Your task to perform on an android device: turn pop-ups off in chrome Image 0: 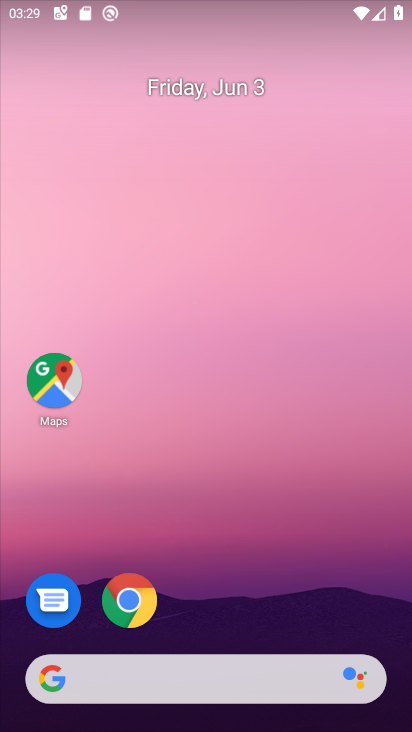
Step 0: click (128, 598)
Your task to perform on an android device: turn pop-ups off in chrome Image 1: 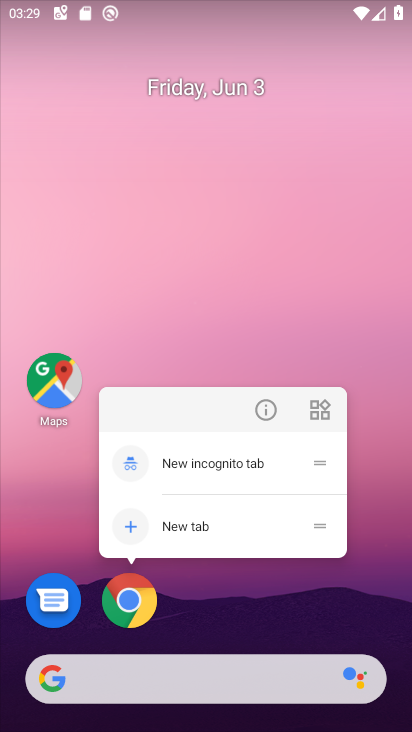
Step 1: click (130, 607)
Your task to perform on an android device: turn pop-ups off in chrome Image 2: 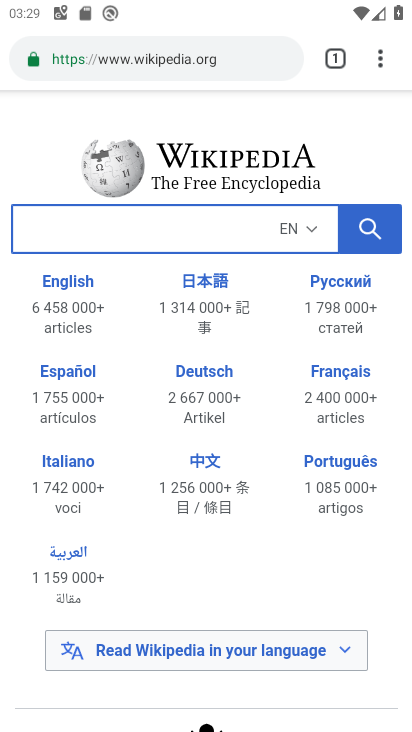
Step 2: drag from (380, 57) to (202, 633)
Your task to perform on an android device: turn pop-ups off in chrome Image 3: 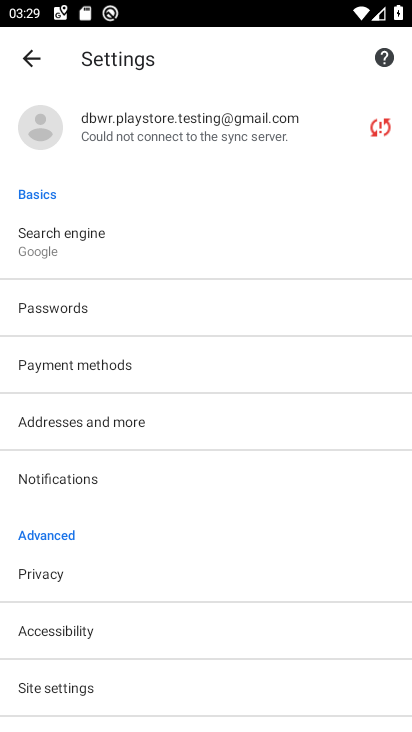
Step 3: drag from (103, 647) to (159, 265)
Your task to perform on an android device: turn pop-ups off in chrome Image 4: 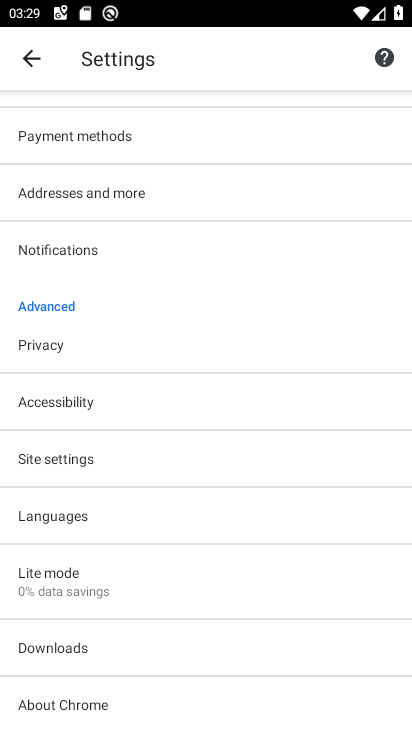
Step 4: click (80, 453)
Your task to perform on an android device: turn pop-ups off in chrome Image 5: 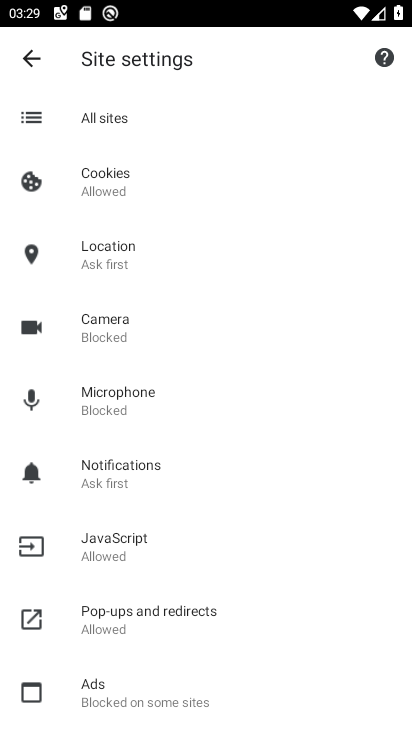
Step 5: click (121, 614)
Your task to perform on an android device: turn pop-ups off in chrome Image 6: 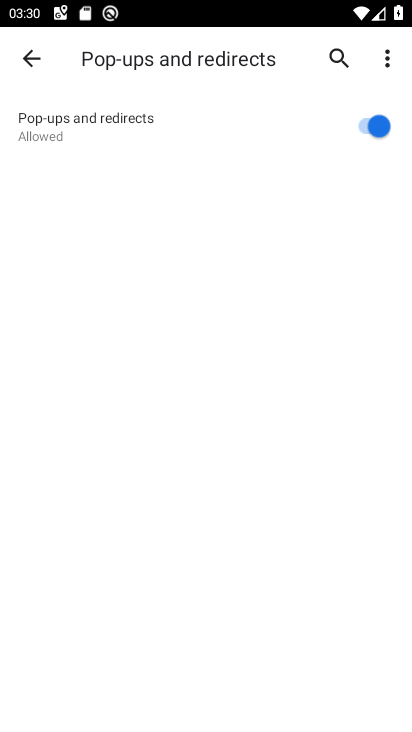
Step 6: click (384, 127)
Your task to perform on an android device: turn pop-ups off in chrome Image 7: 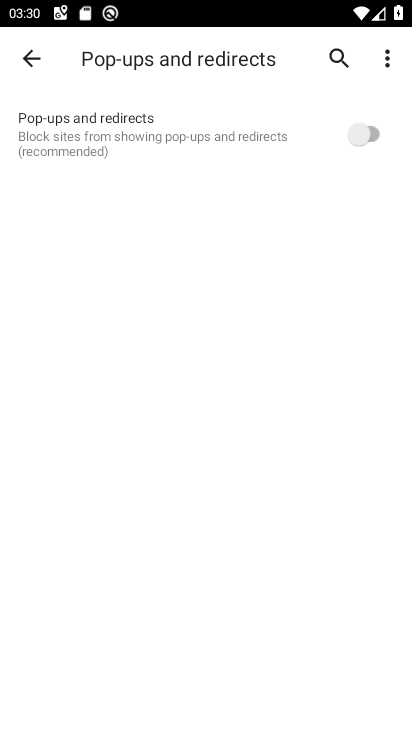
Step 7: task complete